Your task to perform on an android device: Open Google Maps and go to "Timeline" Image 0: 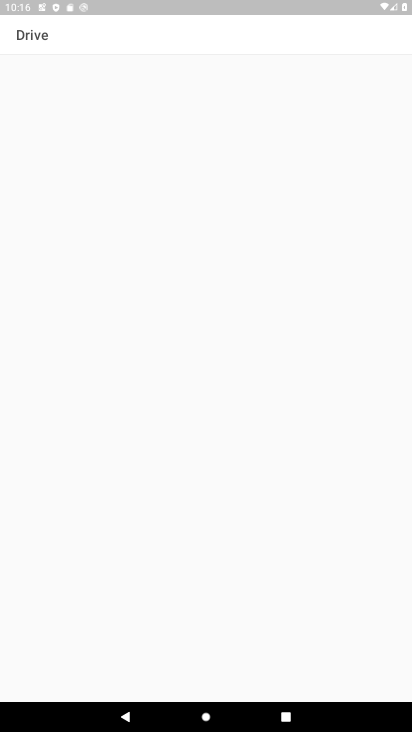
Step 0: press home button
Your task to perform on an android device: Open Google Maps and go to "Timeline" Image 1: 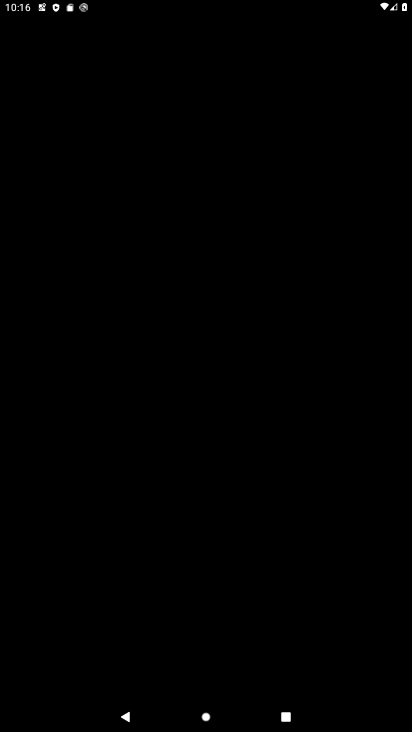
Step 1: press home button
Your task to perform on an android device: Open Google Maps and go to "Timeline" Image 2: 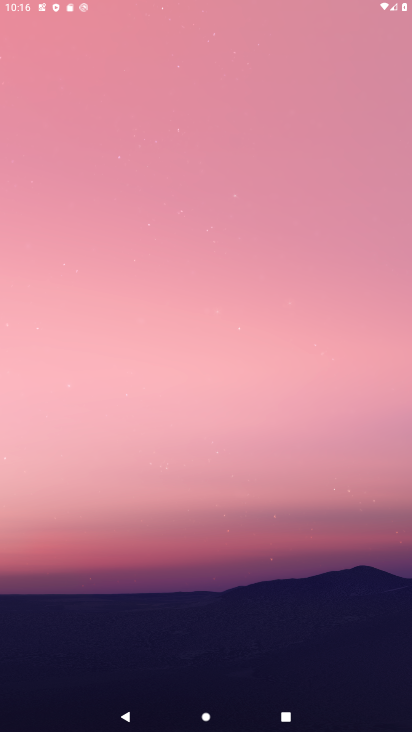
Step 2: drag from (235, 564) to (210, 209)
Your task to perform on an android device: Open Google Maps and go to "Timeline" Image 3: 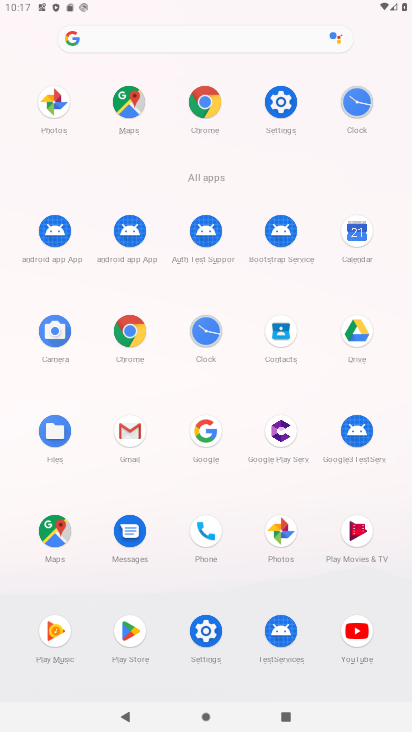
Step 3: click (54, 535)
Your task to perform on an android device: Open Google Maps and go to "Timeline" Image 4: 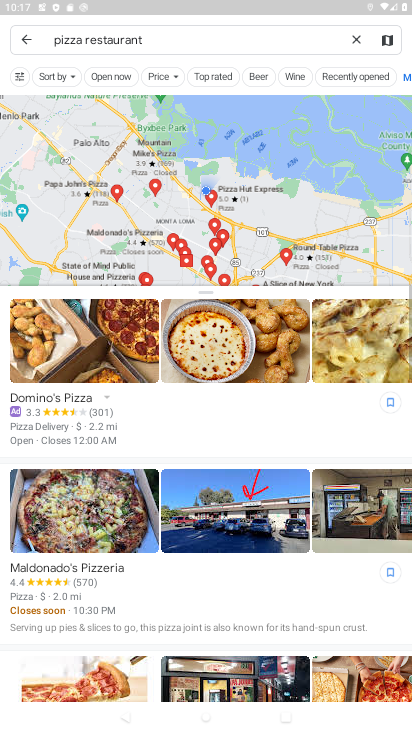
Step 4: click (24, 35)
Your task to perform on an android device: Open Google Maps and go to "Timeline" Image 5: 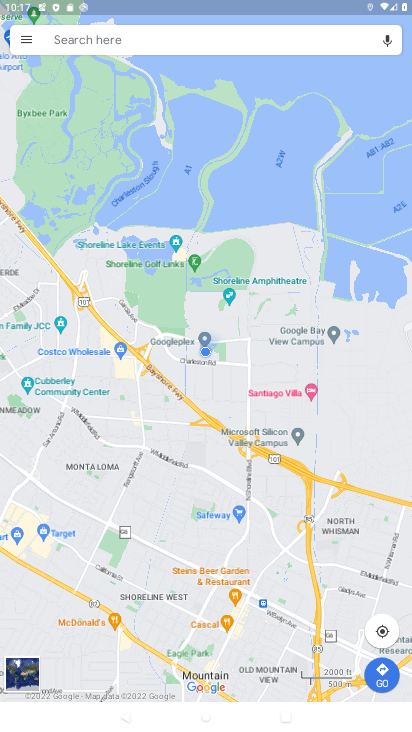
Step 5: click (24, 35)
Your task to perform on an android device: Open Google Maps and go to "Timeline" Image 6: 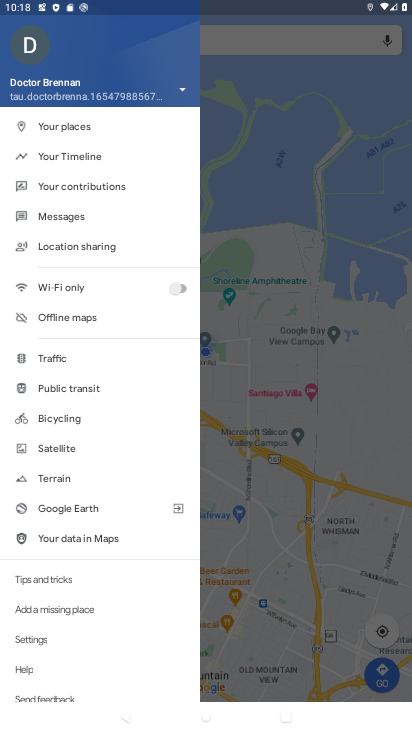
Step 6: click (35, 633)
Your task to perform on an android device: Open Google Maps and go to "Timeline" Image 7: 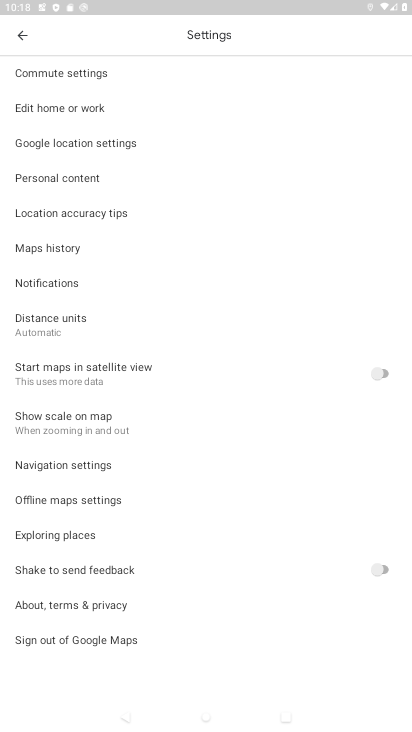
Step 7: click (28, 42)
Your task to perform on an android device: Open Google Maps and go to "Timeline" Image 8: 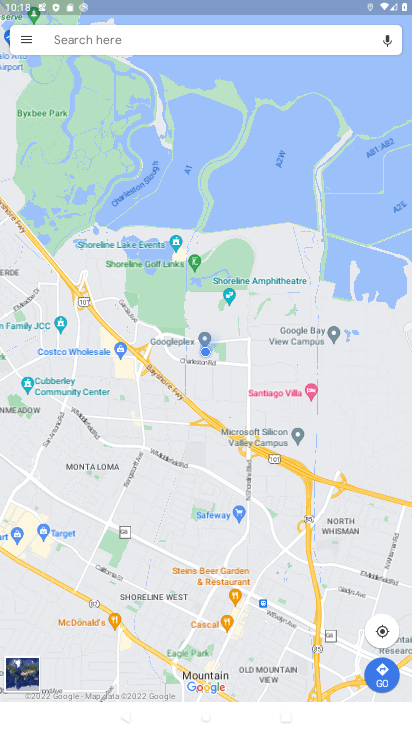
Step 8: click (28, 42)
Your task to perform on an android device: Open Google Maps and go to "Timeline" Image 9: 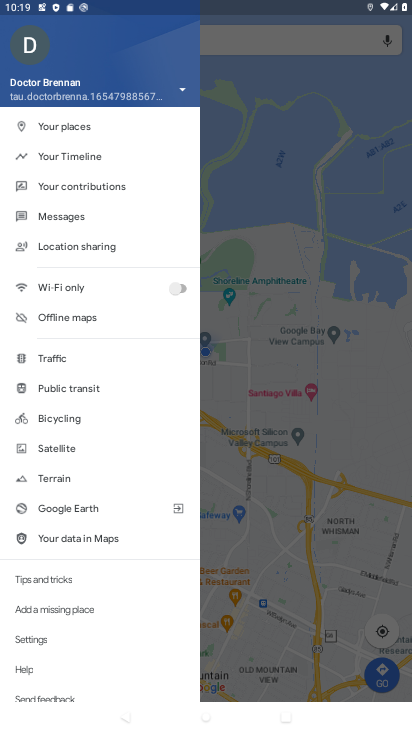
Step 9: click (14, 156)
Your task to perform on an android device: Open Google Maps and go to "Timeline" Image 10: 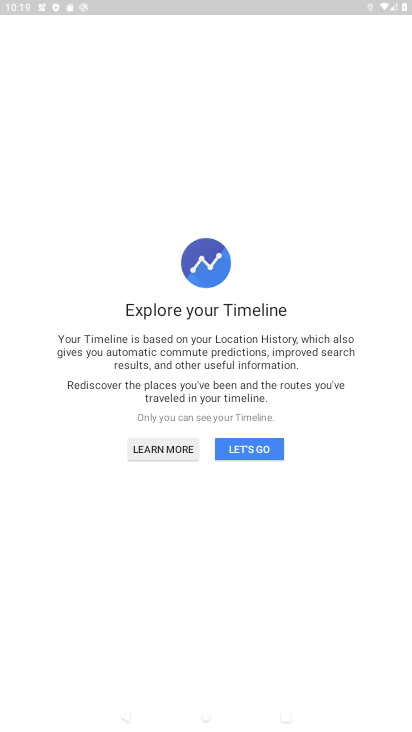
Step 10: click (243, 448)
Your task to perform on an android device: Open Google Maps and go to "Timeline" Image 11: 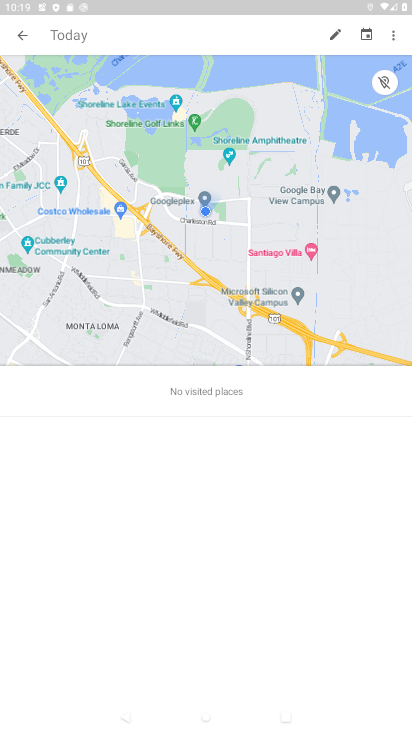
Step 11: task complete